Your task to perform on an android device: What is the news today? Image 0: 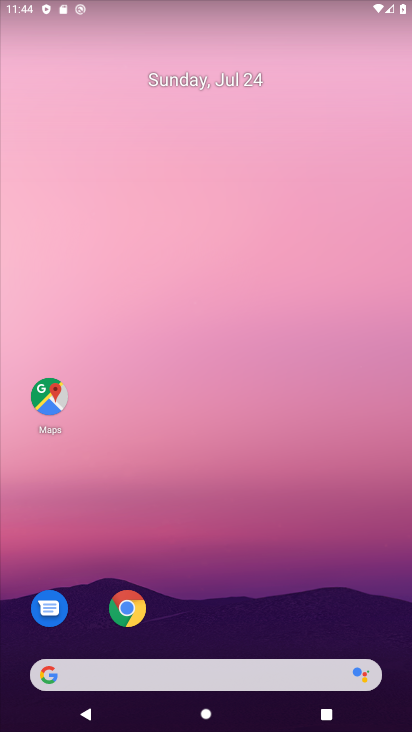
Step 0: click (115, 667)
Your task to perform on an android device: What is the news today? Image 1: 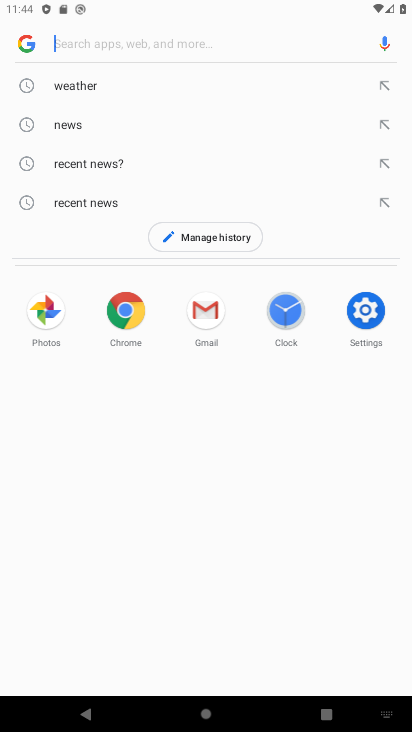
Step 1: click (78, 119)
Your task to perform on an android device: What is the news today? Image 2: 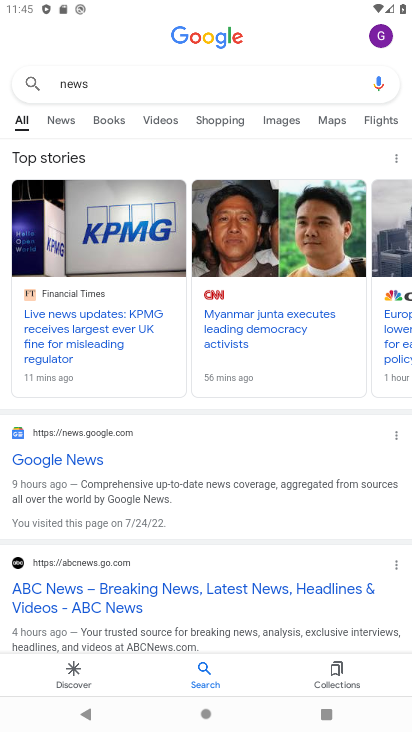
Step 2: task complete